Your task to perform on an android device: uninstall "Pluto TV - Live TV and Movies" Image 0: 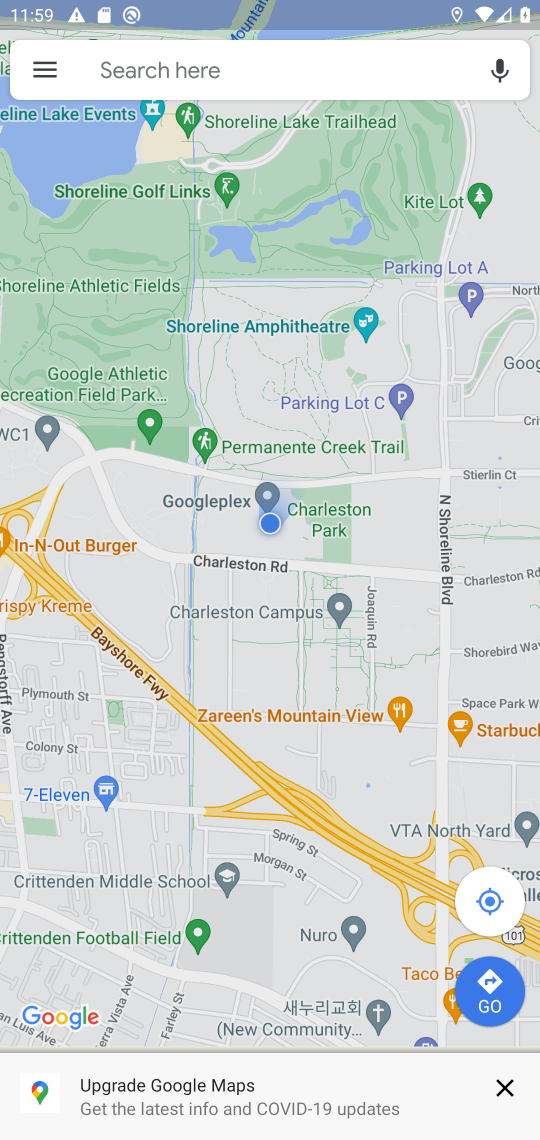
Step 0: press home button
Your task to perform on an android device: uninstall "Pluto TV - Live TV and Movies" Image 1: 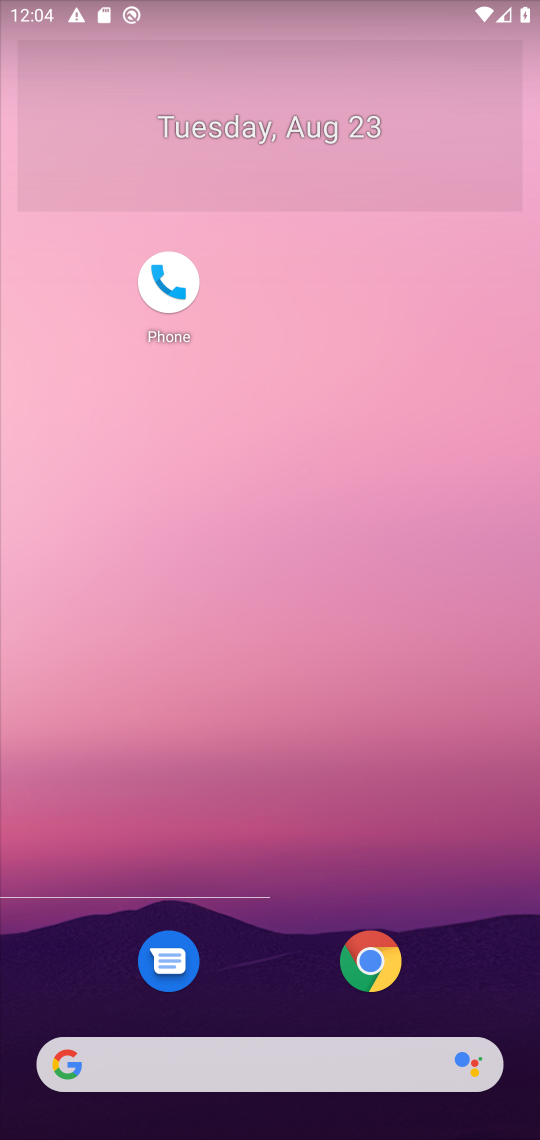
Step 1: drag from (254, 984) to (379, 78)
Your task to perform on an android device: uninstall "Pluto TV - Live TV and Movies" Image 2: 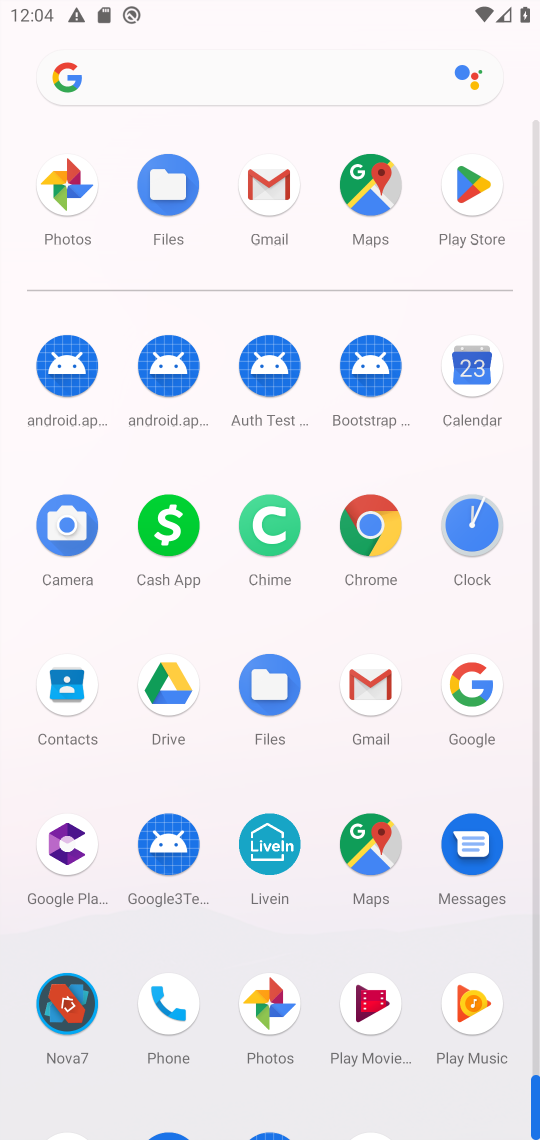
Step 2: click (435, 197)
Your task to perform on an android device: uninstall "Pluto TV - Live TV and Movies" Image 3: 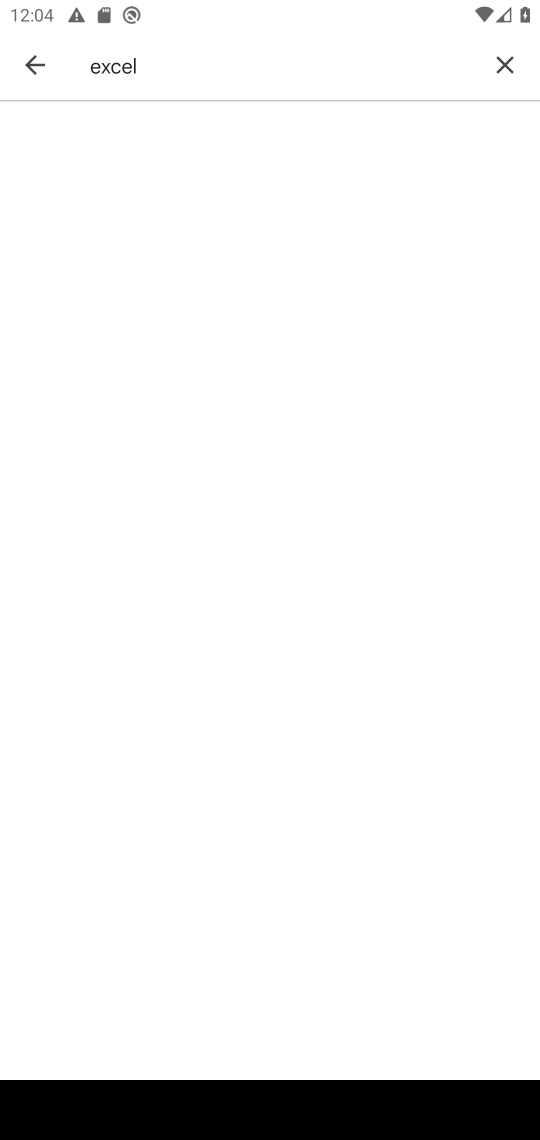
Step 3: click (497, 75)
Your task to perform on an android device: uninstall "Pluto TV - Live TV and Movies" Image 4: 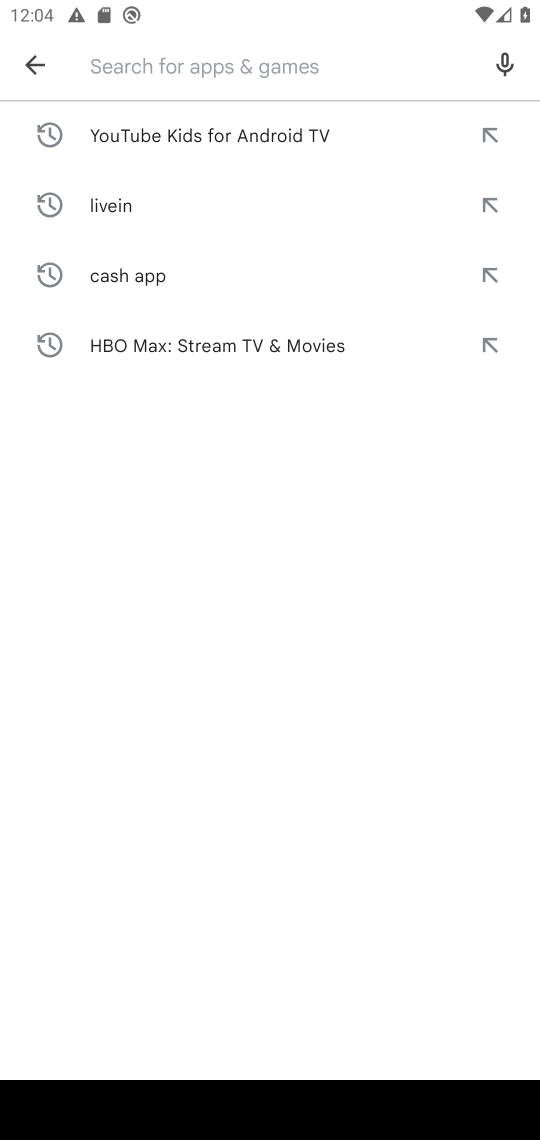
Step 4: type "pluto tv"
Your task to perform on an android device: uninstall "Pluto TV - Live TV and Movies" Image 5: 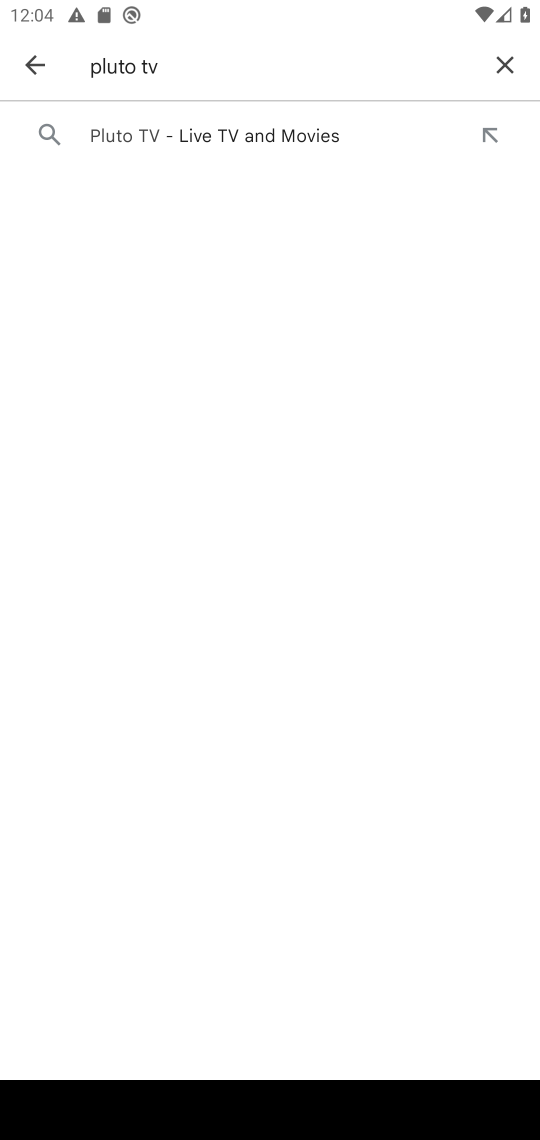
Step 5: click (255, 142)
Your task to perform on an android device: uninstall "Pluto TV - Live TV and Movies" Image 6: 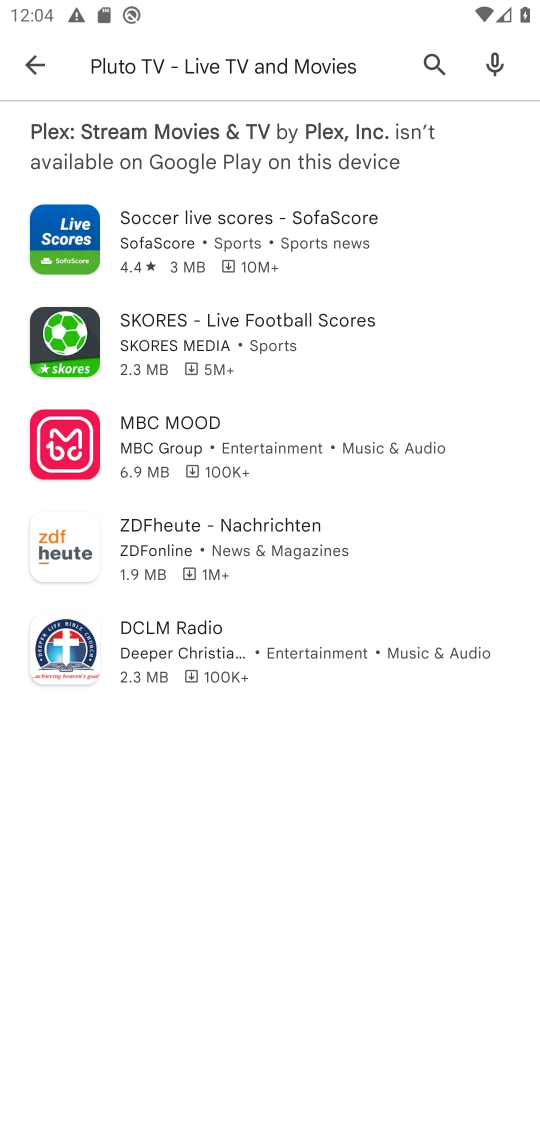
Step 6: task complete